Your task to perform on an android device: Is it going to rain tomorrow? Image 0: 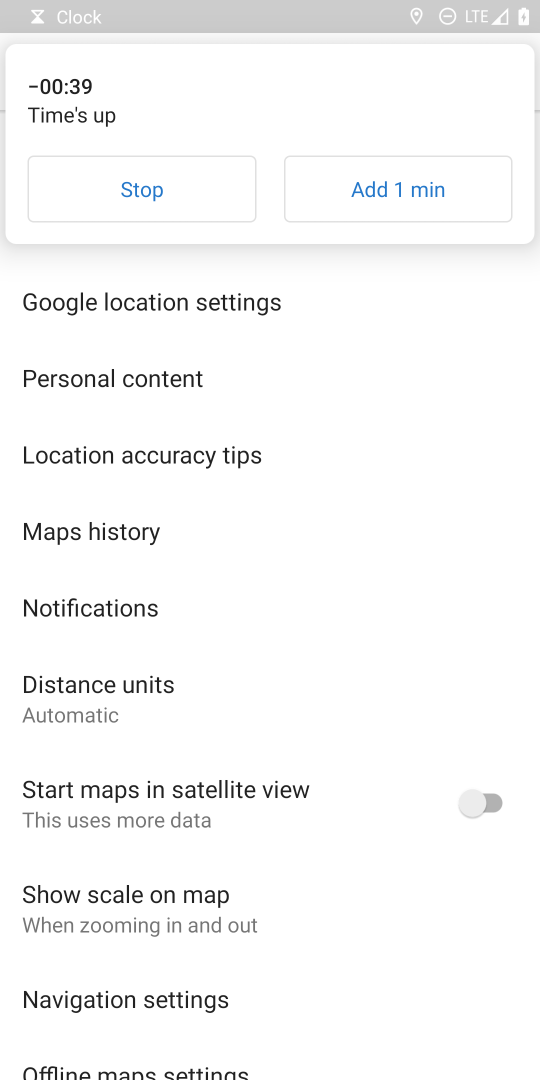
Step 0: press home button
Your task to perform on an android device: Is it going to rain tomorrow? Image 1: 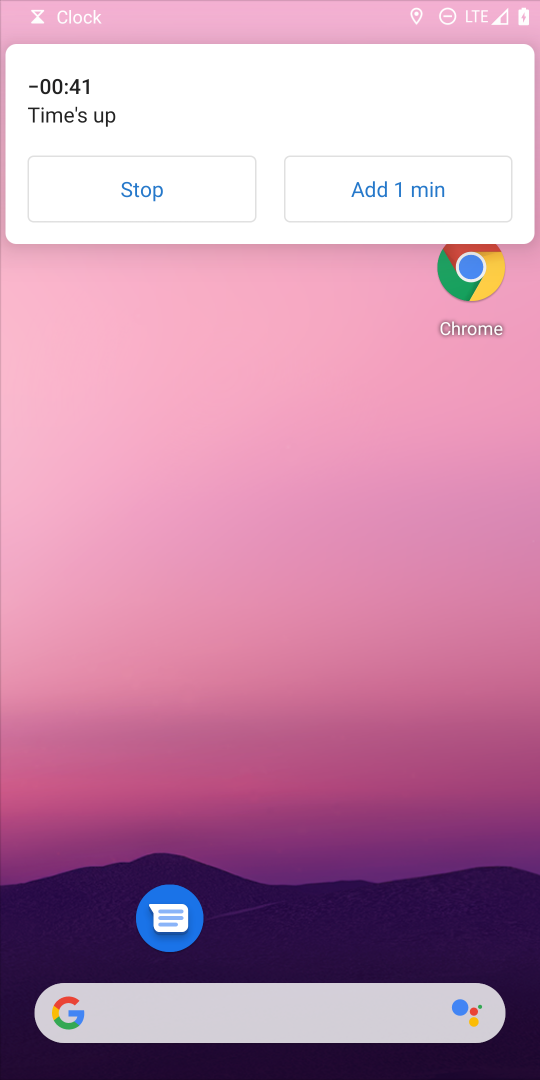
Step 1: drag from (259, 773) to (282, 36)
Your task to perform on an android device: Is it going to rain tomorrow? Image 2: 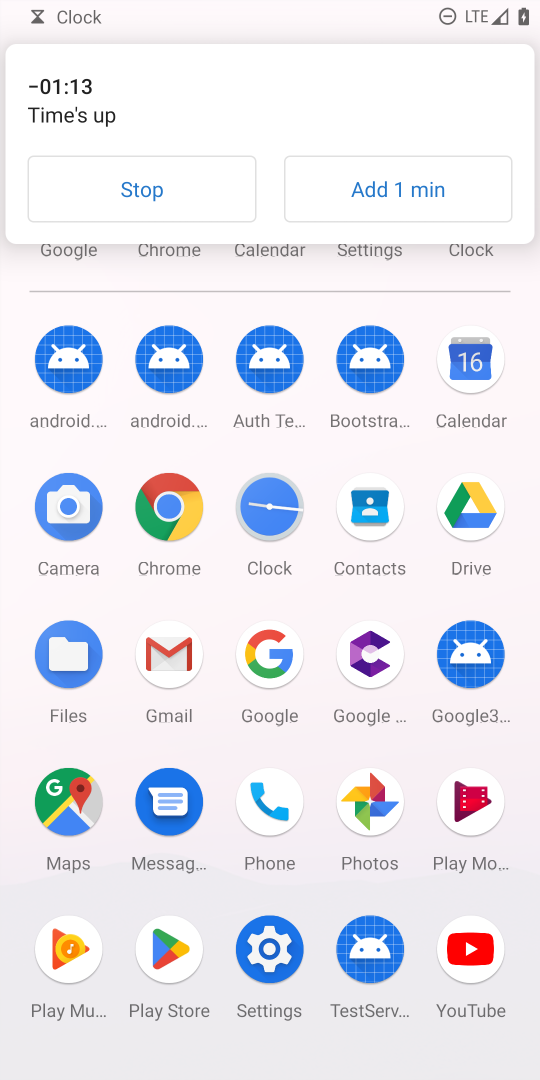
Step 2: click (296, 666)
Your task to perform on an android device: Is it going to rain tomorrow? Image 3: 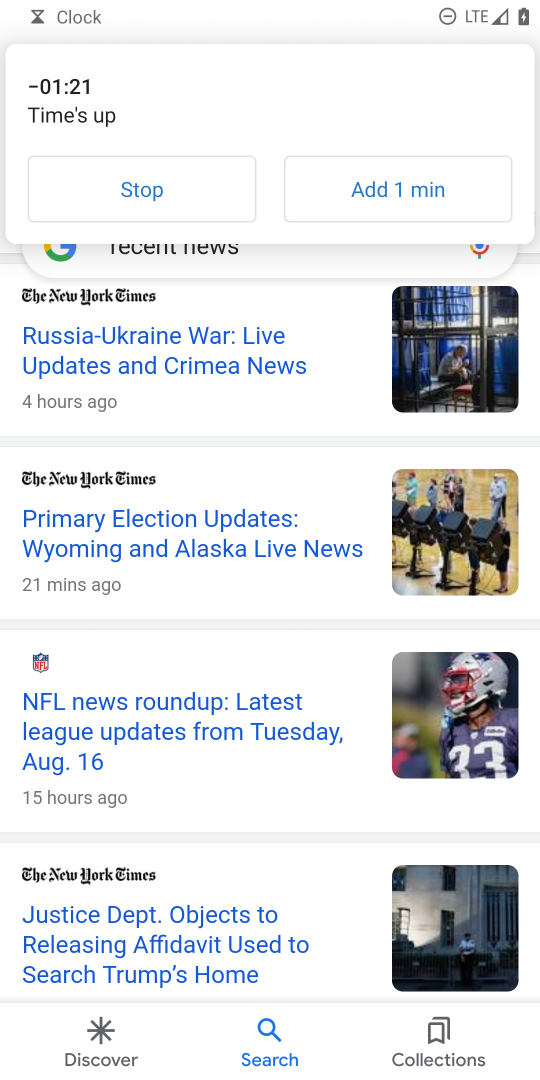
Step 3: click (172, 203)
Your task to perform on an android device: Is it going to rain tomorrow? Image 4: 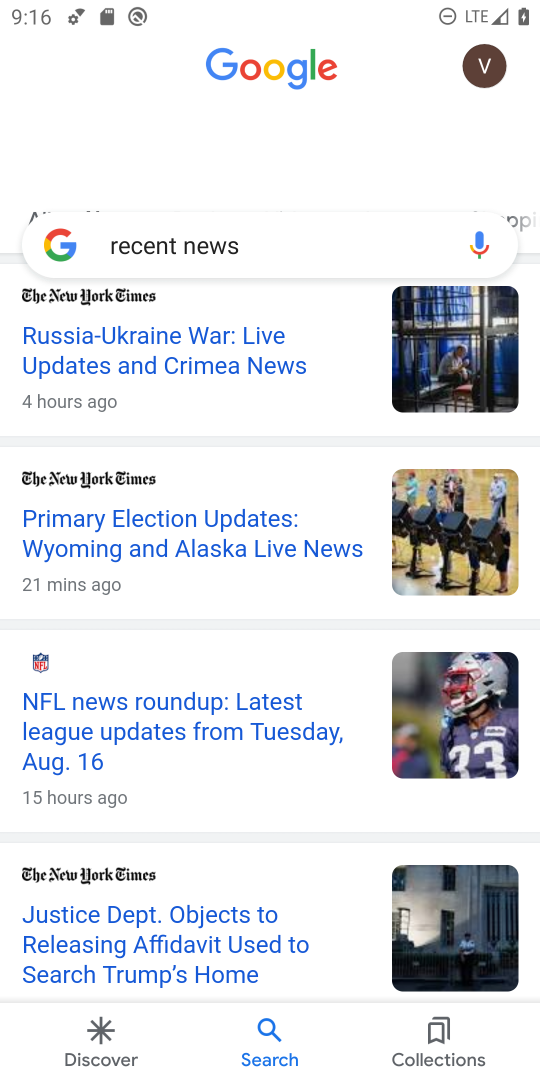
Step 4: click (268, 256)
Your task to perform on an android device: Is it going to rain tomorrow? Image 5: 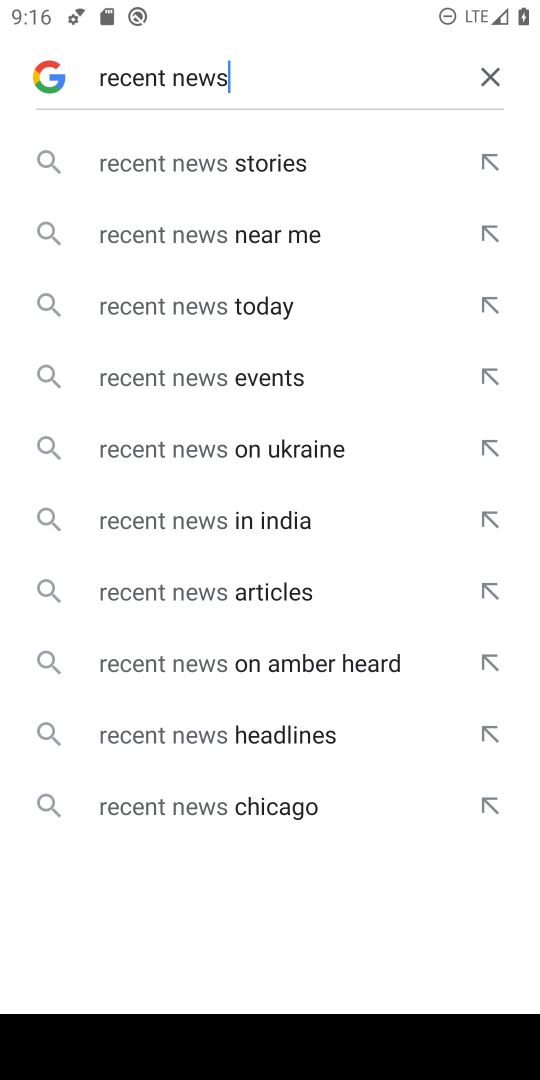
Step 5: click (493, 69)
Your task to perform on an android device: Is it going to rain tomorrow? Image 6: 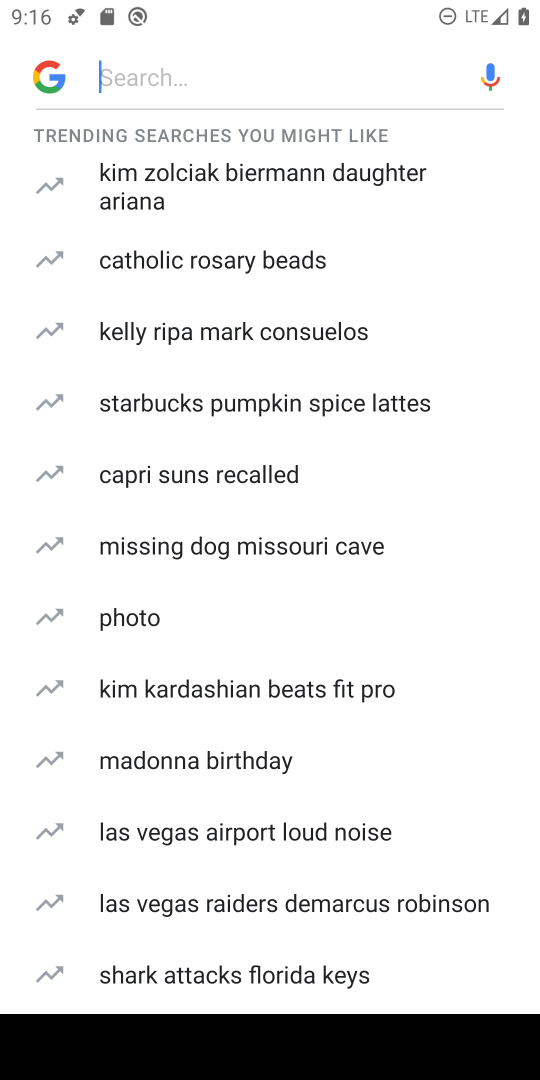
Step 6: type "weather"
Your task to perform on an android device: Is it going to rain tomorrow? Image 7: 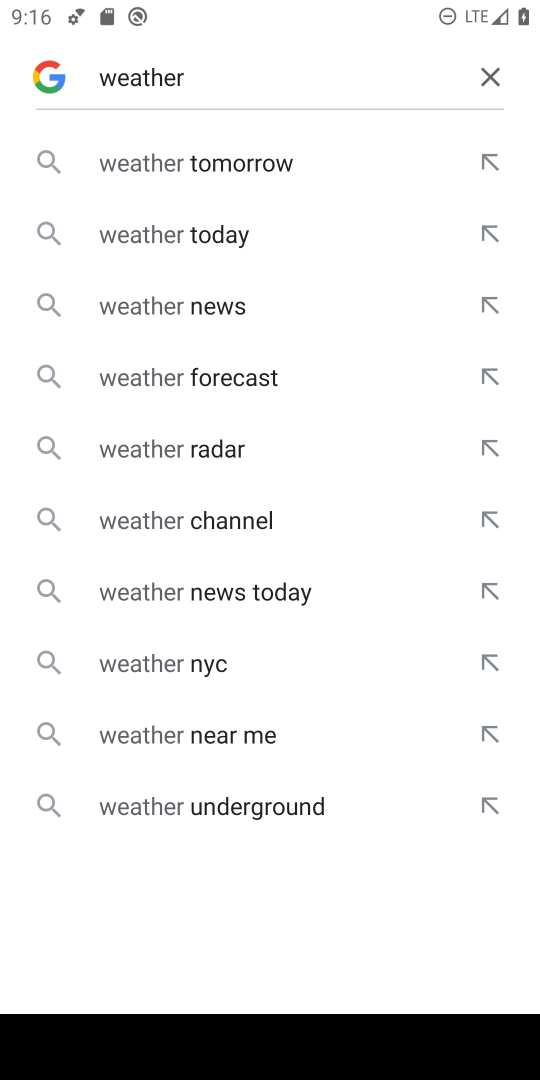
Step 7: click (259, 152)
Your task to perform on an android device: Is it going to rain tomorrow? Image 8: 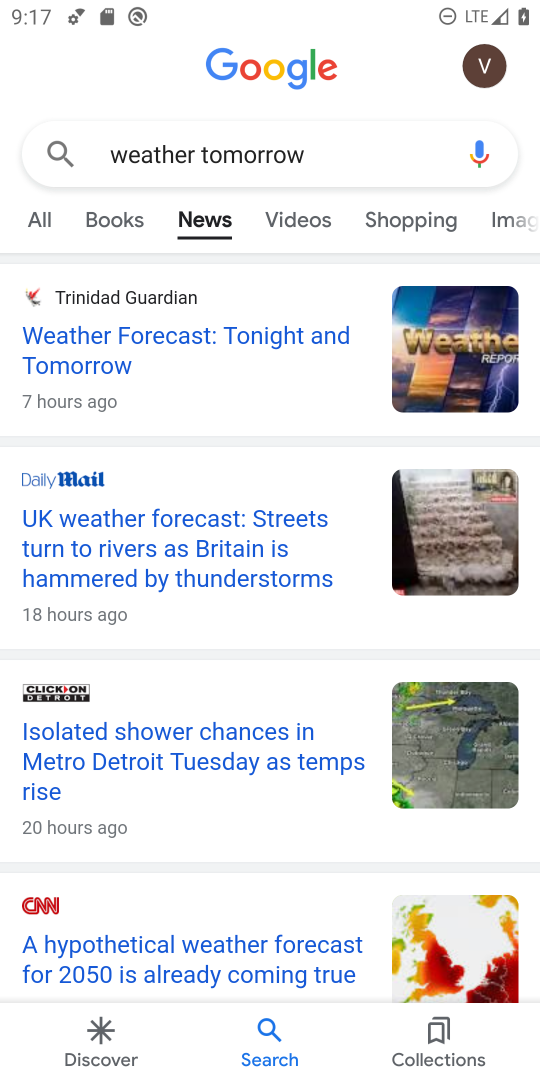
Step 8: click (44, 219)
Your task to perform on an android device: Is it going to rain tomorrow? Image 9: 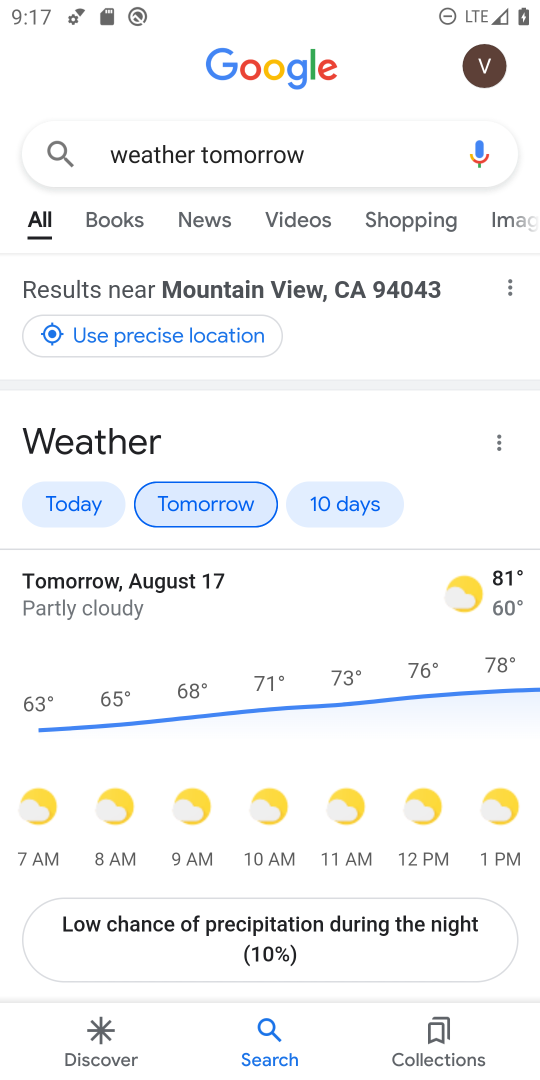
Step 9: task complete